Your task to perform on an android device: uninstall "Skype" Image 0: 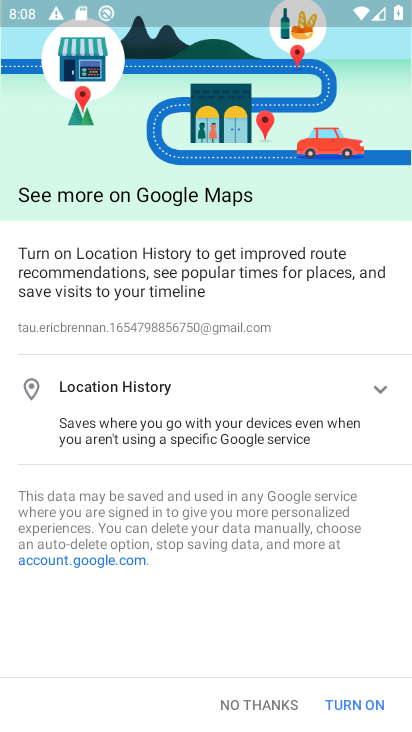
Step 0: press home button
Your task to perform on an android device: uninstall "Skype" Image 1: 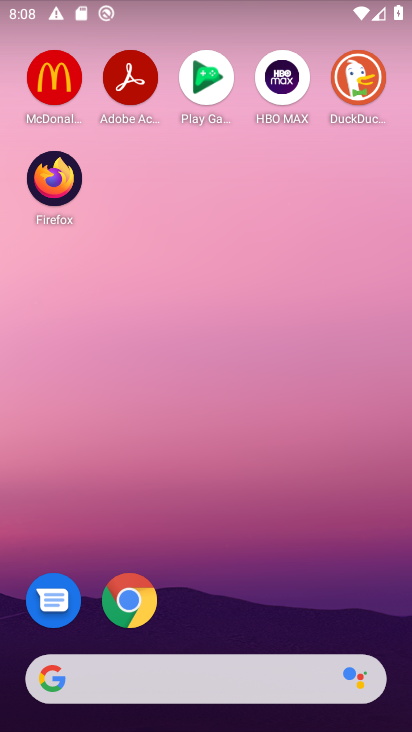
Step 1: drag from (215, 597) to (241, 151)
Your task to perform on an android device: uninstall "Skype" Image 2: 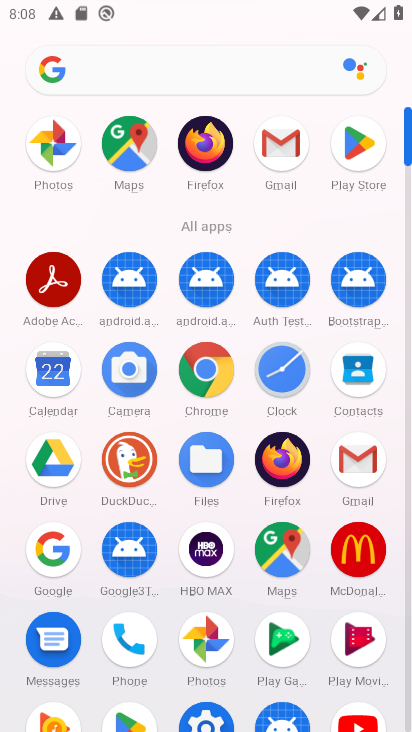
Step 2: click (358, 162)
Your task to perform on an android device: uninstall "Skype" Image 3: 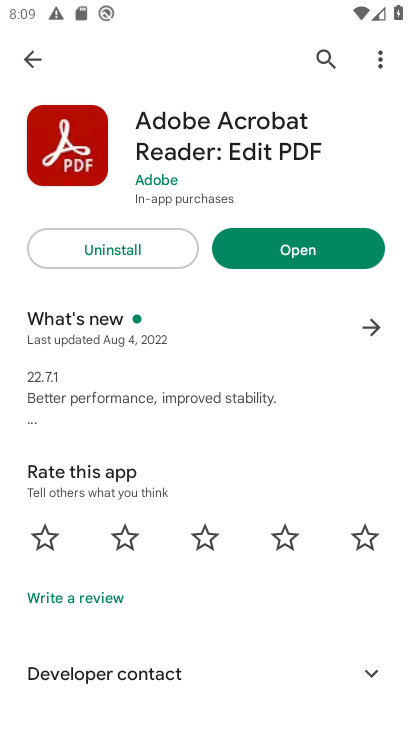
Step 3: click (319, 44)
Your task to perform on an android device: uninstall "Skype" Image 4: 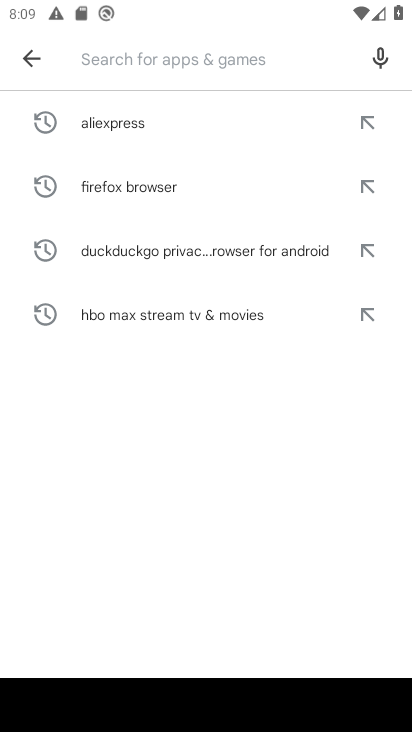
Step 4: type "Skype"
Your task to perform on an android device: uninstall "Skype" Image 5: 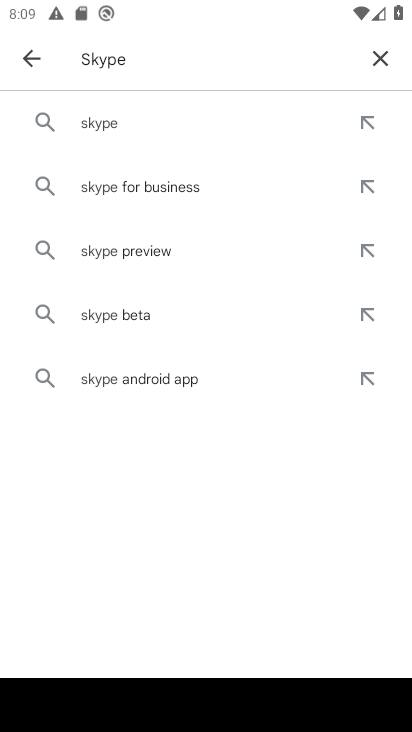
Step 5: click (116, 126)
Your task to perform on an android device: uninstall "Skype" Image 6: 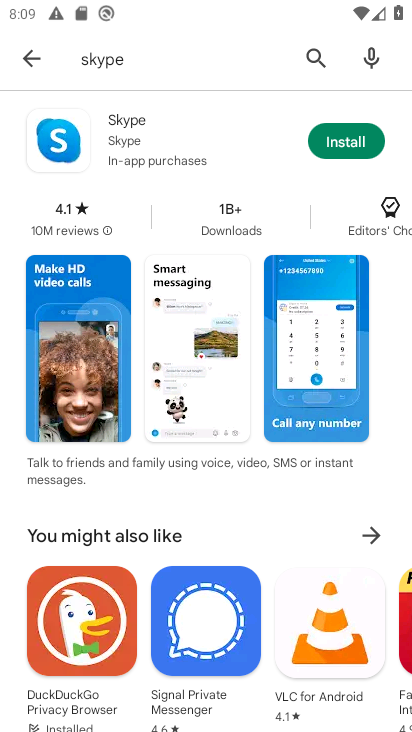
Step 6: click (177, 127)
Your task to perform on an android device: uninstall "Skype" Image 7: 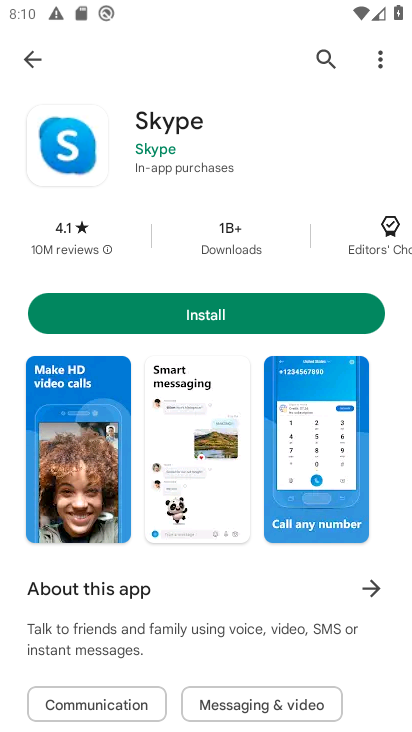
Step 7: task complete